Your task to perform on an android device: Open location settings Image 0: 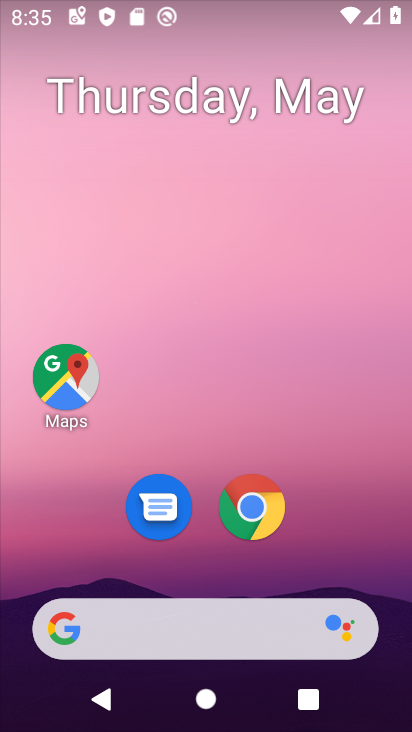
Step 0: drag from (369, 437) to (354, 110)
Your task to perform on an android device: Open location settings Image 1: 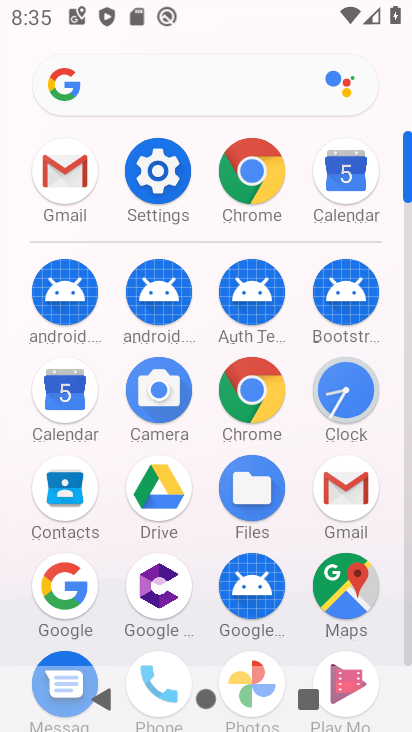
Step 1: click (165, 177)
Your task to perform on an android device: Open location settings Image 2: 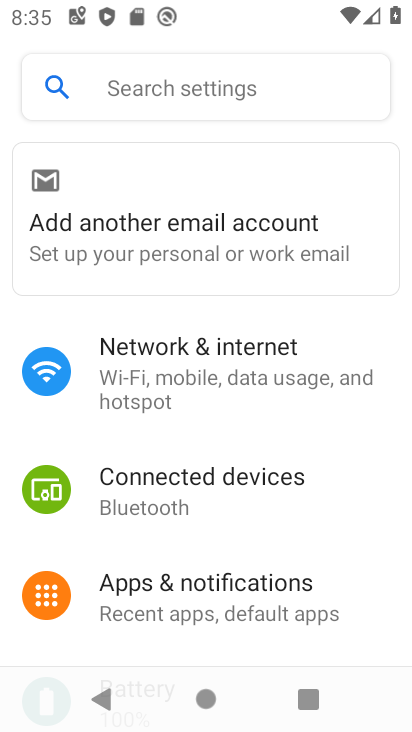
Step 2: drag from (325, 557) to (347, 201)
Your task to perform on an android device: Open location settings Image 3: 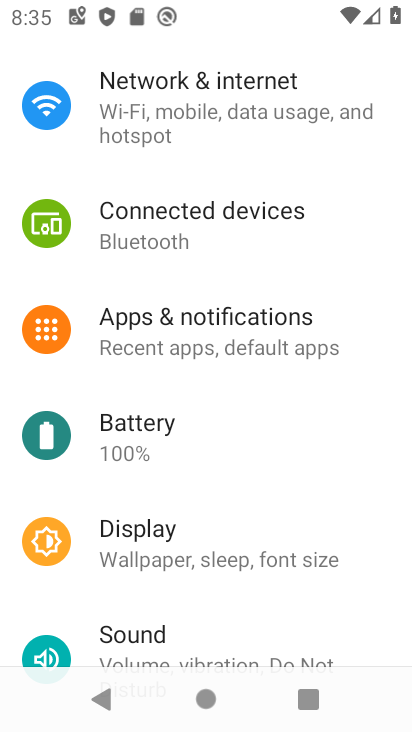
Step 3: drag from (297, 614) to (345, 237)
Your task to perform on an android device: Open location settings Image 4: 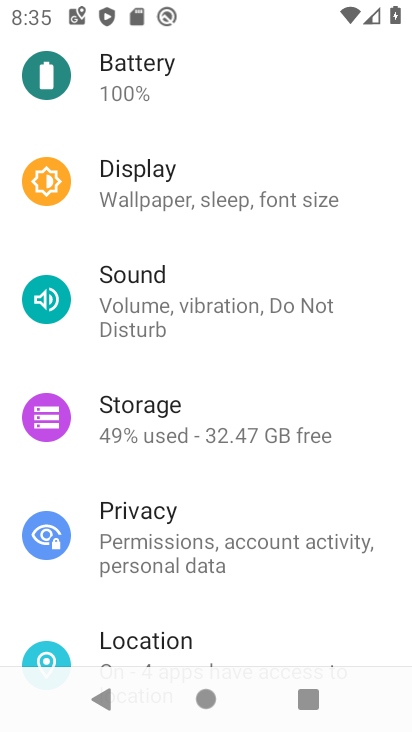
Step 4: drag from (238, 627) to (350, 186)
Your task to perform on an android device: Open location settings Image 5: 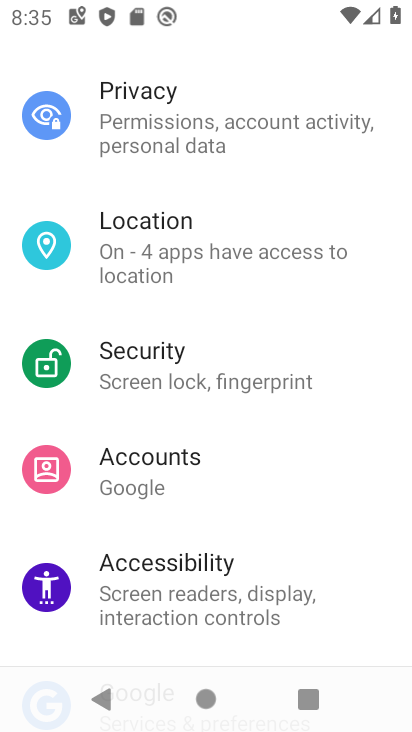
Step 5: click (141, 224)
Your task to perform on an android device: Open location settings Image 6: 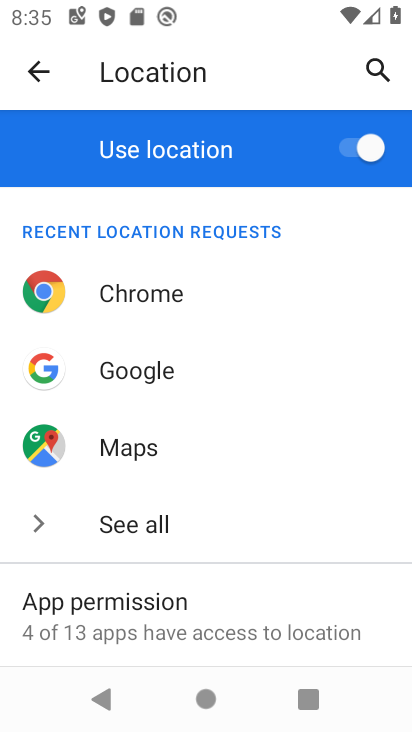
Step 6: task complete